Your task to perform on an android device: turn off priority inbox in the gmail app Image 0: 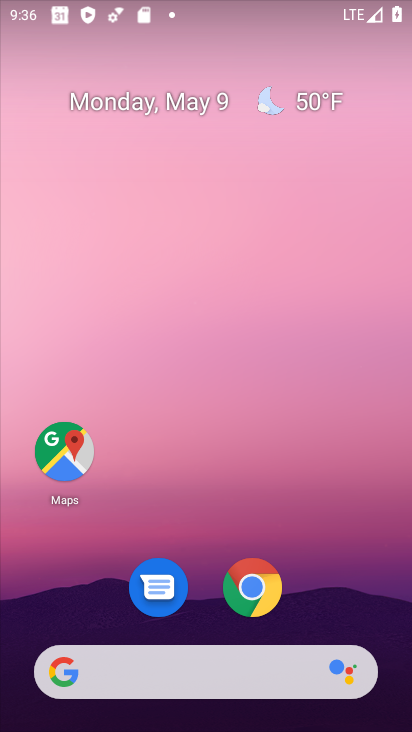
Step 0: drag from (201, 723) to (201, 234)
Your task to perform on an android device: turn off priority inbox in the gmail app Image 1: 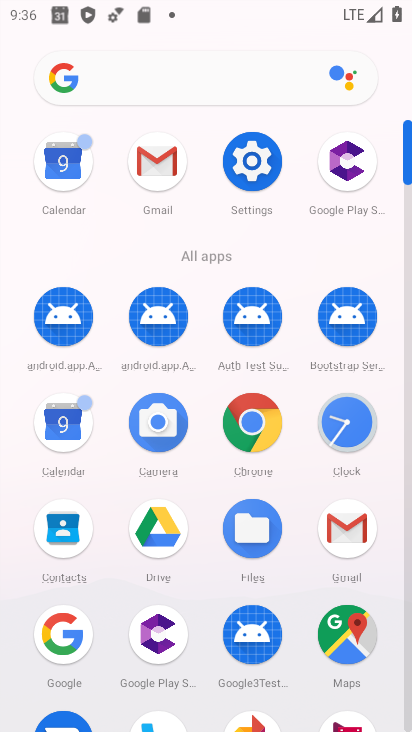
Step 1: click (345, 522)
Your task to perform on an android device: turn off priority inbox in the gmail app Image 2: 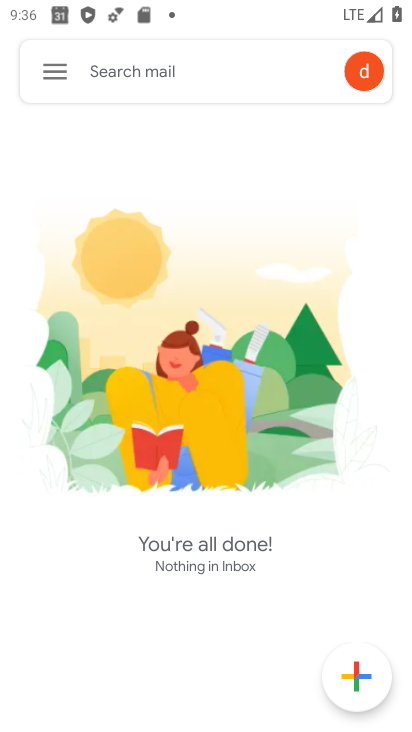
Step 2: click (49, 66)
Your task to perform on an android device: turn off priority inbox in the gmail app Image 3: 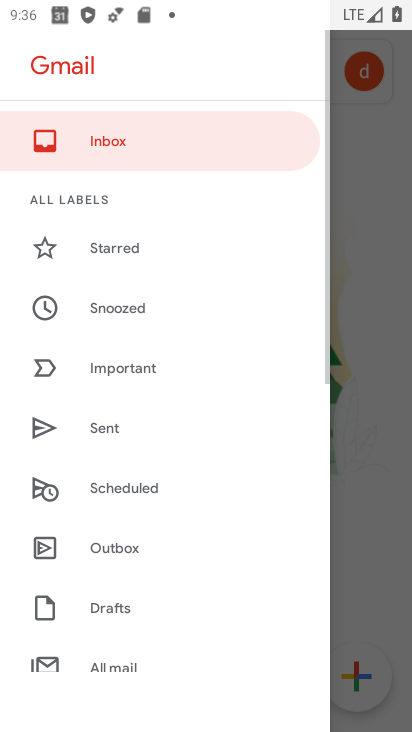
Step 3: drag from (131, 634) to (143, 226)
Your task to perform on an android device: turn off priority inbox in the gmail app Image 4: 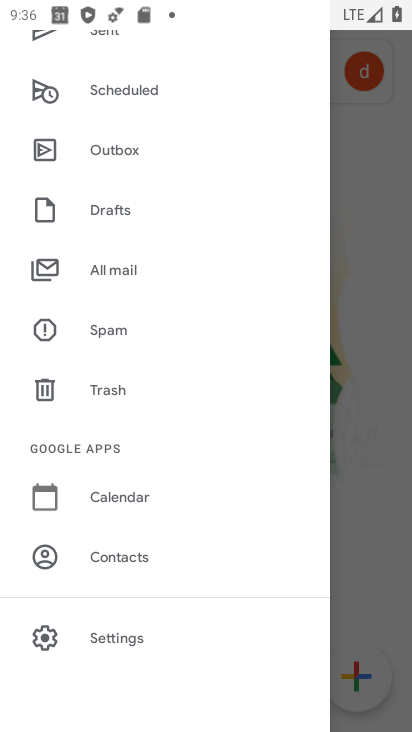
Step 4: click (114, 642)
Your task to perform on an android device: turn off priority inbox in the gmail app Image 5: 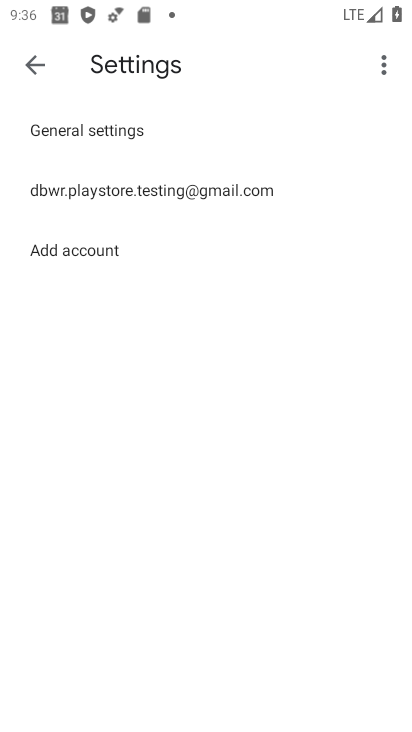
Step 5: click (145, 186)
Your task to perform on an android device: turn off priority inbox in the gmail app Image 6: 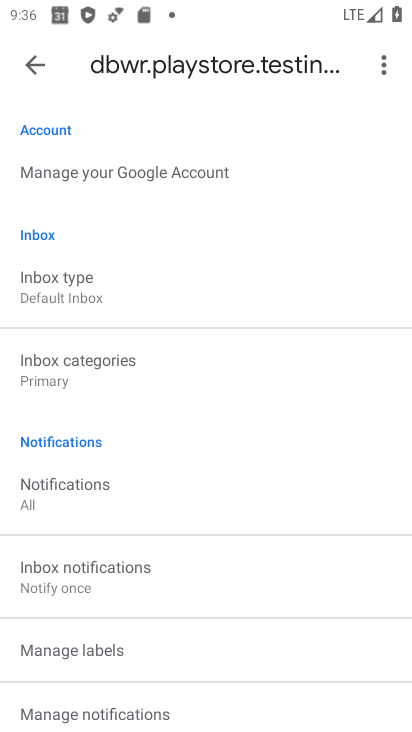
Step 6: task complete